Your task to perform on an android device: check the backup settings in the google photos Image 0: 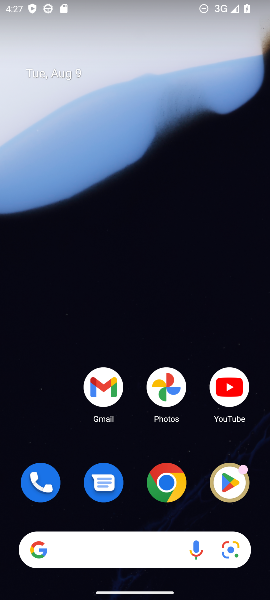
Step 0: click (156, 398)
Your task to perform on an android device: check the backup settings in the google photos Image 1: 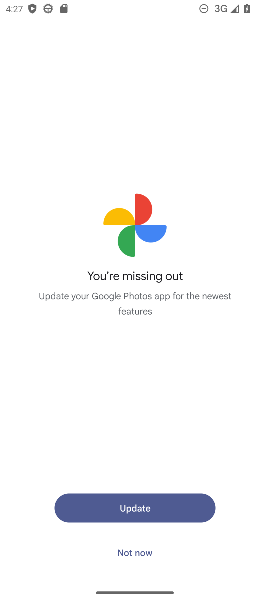
Step 1: click (131, 544)
Your task to perform on an android device: check the backup settings in the google photos Image 2: 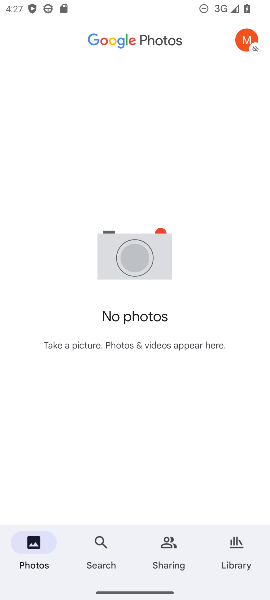
Step 2: click (256, 46)
Your task to perform on an android device: check the backup settings in the google photos Image 3: 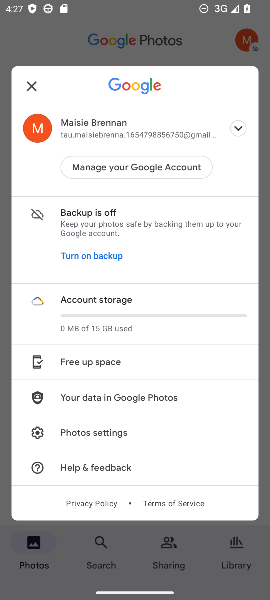
Step 3: drag from (107, 449) to (119, 188)
Your task to perform on an android device: check the backup settings in the google photos Image 4: 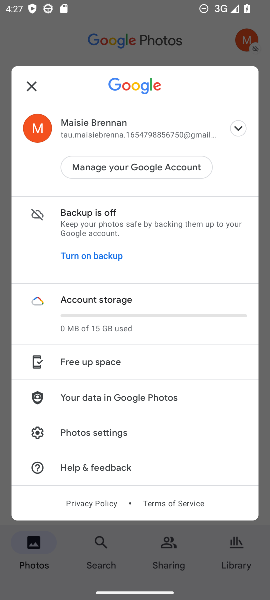
Step 4: click (144, 429)
Your task to perform on an android device: check the backup settings in the google photos Image 5: 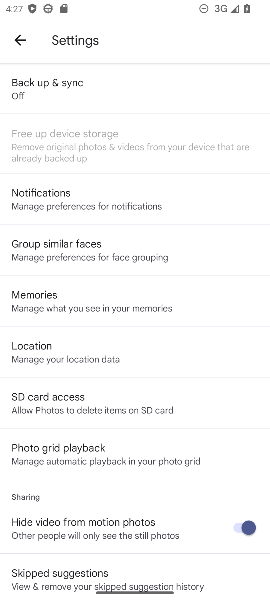
Step 5: click (77, 103)
Your task to perform on an android device: check the backup settings in the google photos Image 6: 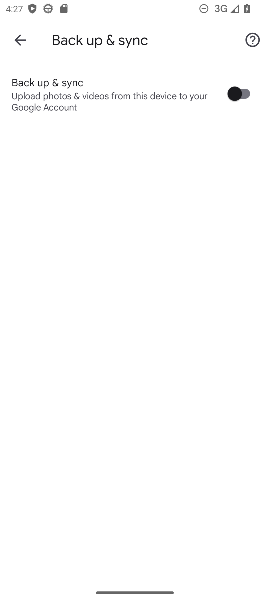
Step 6: task complete